Your task to perform on an android device: change the clock display to analog Image 0: 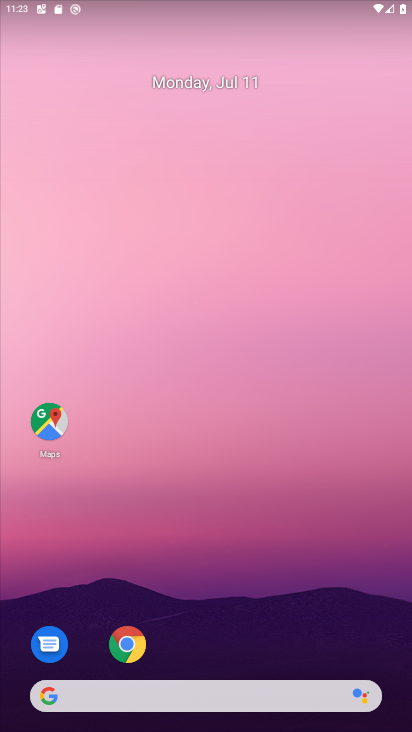
Step 0: drag from (270, 654) to (312, 41)
Your task to perform on an android device: change the clock display to analog Image 1: 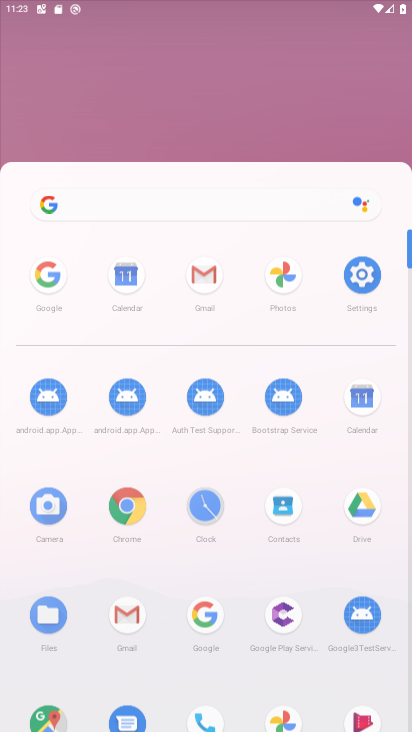
Step 1: click (312, 41)
Your task to perform on an android device: change the clock display to analog Image 2: 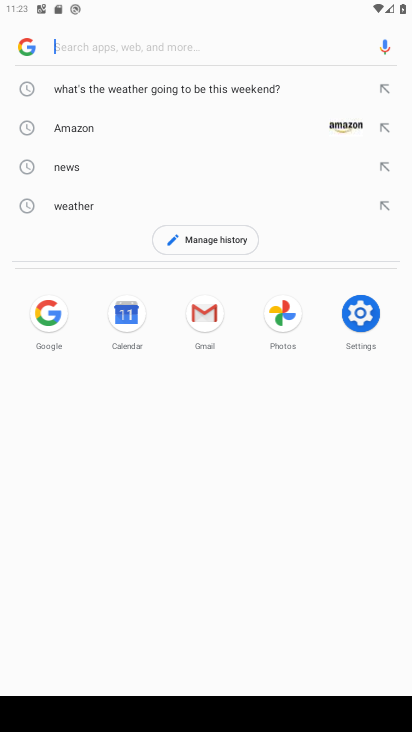
Step 2: press home button
Your task to perform on an android device: change the clock display to analog Image 3: 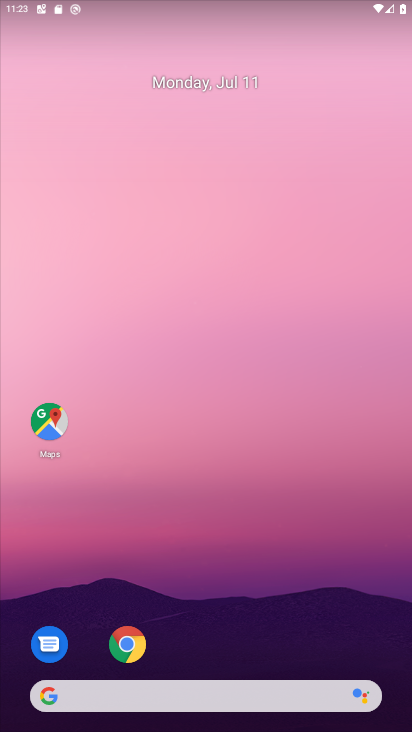
Step 3: drag from (198, 549) to (287, 45)
Your task to perform on an android device: change the clock display to analog Image 4: 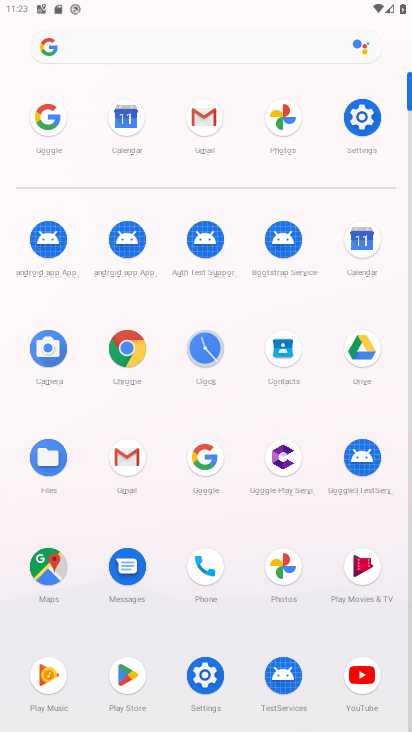
Step 4: click (213, 354)
Your task to perform on an android device: change the clock display to analog Image 5: 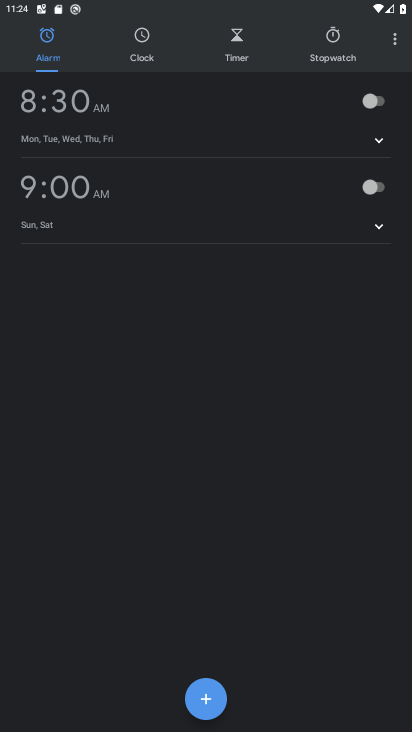
Step 5: click (396, 42)
Your task to perform on an android device: change the clock display to analog Image 6: 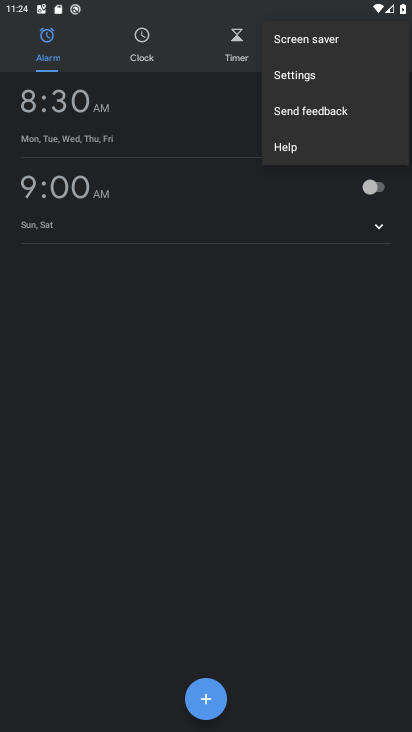
Step 6: click (321, 77)
Your task to perform on an android device: change the clock display to analog Image 7: 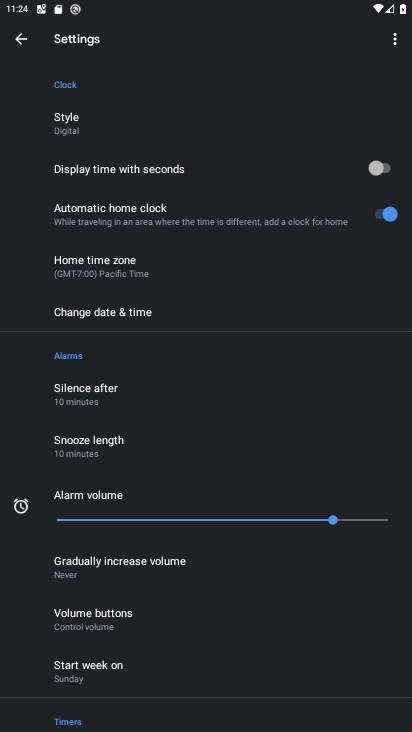
Step 7: click (87, 143)
Your task to perform on an android device: change the clock display to analog Image 8: 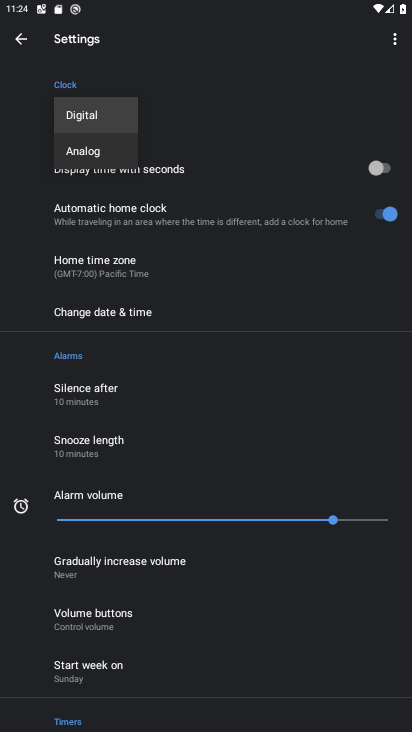
Step 8: click (107, 154)
Your task to perform on an android device: change the clock display to analog Image 9: 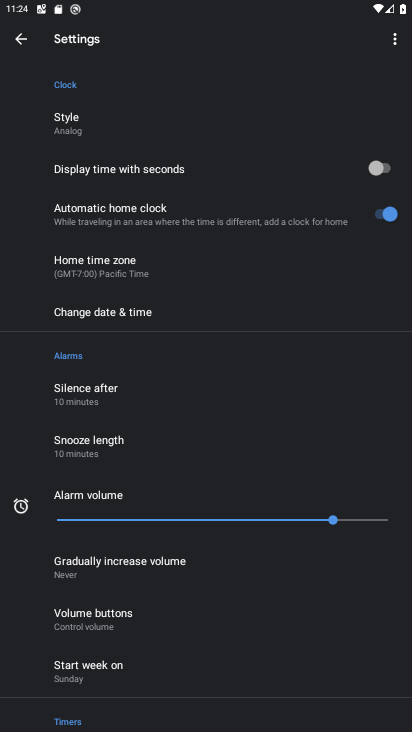
Step 9: task complete